Your task to perform on an android device: Open Youtube and go to the subscriptions tab Image 0: 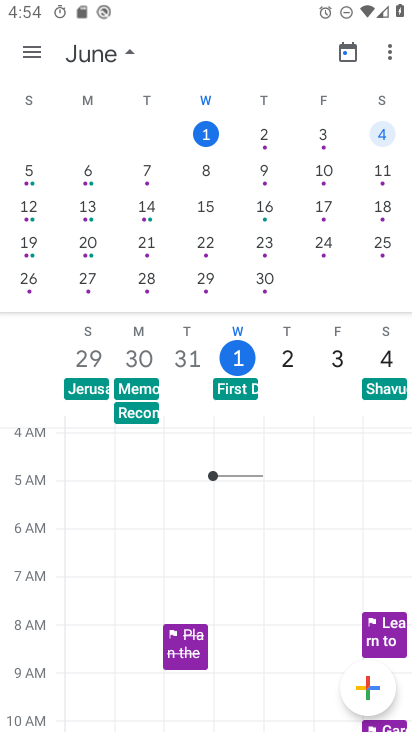
Step 0: press home button
Your task to perform on an android device: Open Youtube and go to the subscriptions tab Image 1: 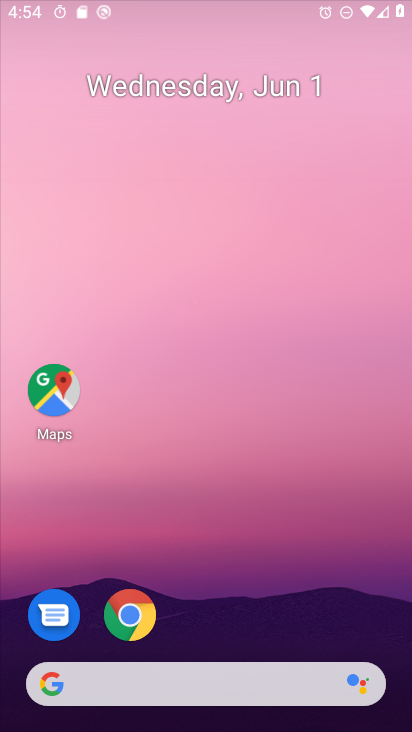
Step 1: drag from (303, 682) to (236, 104)
Your task to perform on an android device: Open Youtube and go to the subscriptions tab Image 2: 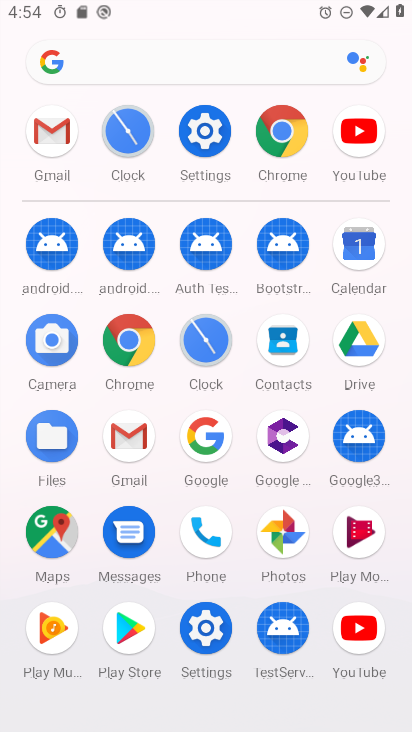
Step 2: click (349, 619)
Your task to perform on an android device: Open Youtube and go to the subscriptions tab Image 3: 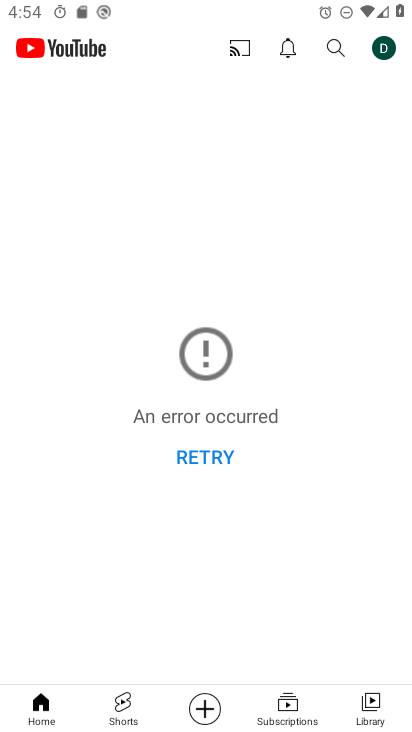
Step 3: press home button
Your task to perform on an android device: Open Youtube and go to the subscriptions tab Image 4: 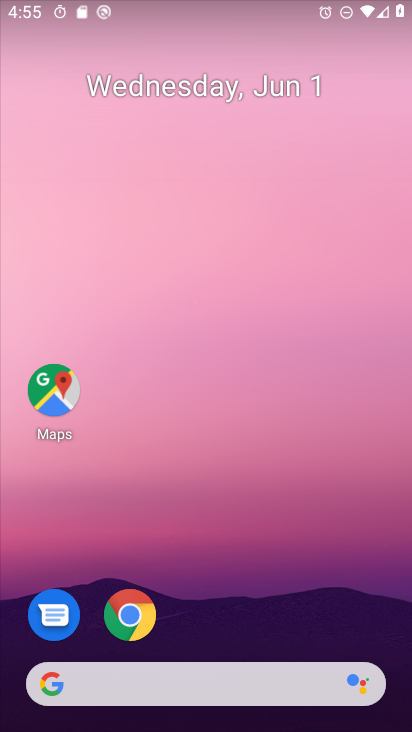
Step 4: drag from (205, 658) to (243, 152)
Your task to perform on an android device: Open Youtube and go to the subscriptions tab Image 5: 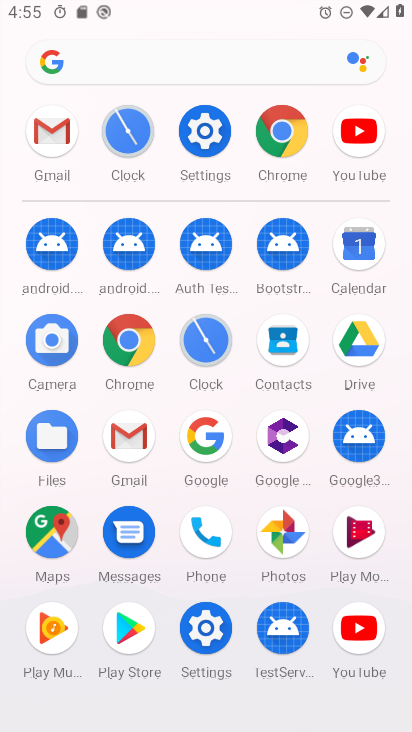
Step 5: click (350, 631)
Your task to perform on an android device: Open Youtube and go to the subscriptions tab Image 6: 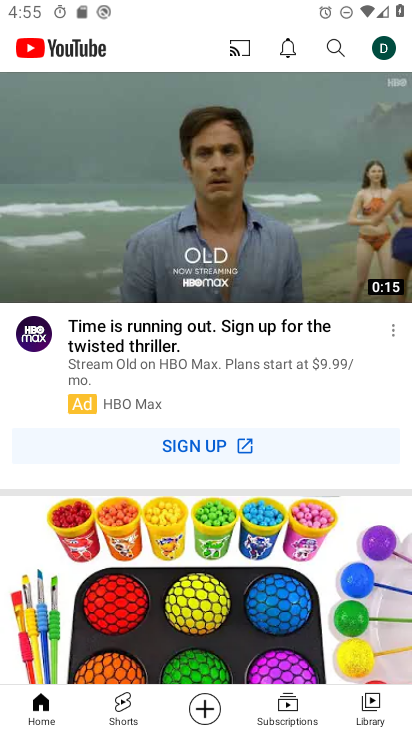
Step 6: click (301, 698)
Your task to perform on an android device: Open Youtube and go to the subscriptions tab Image 7: 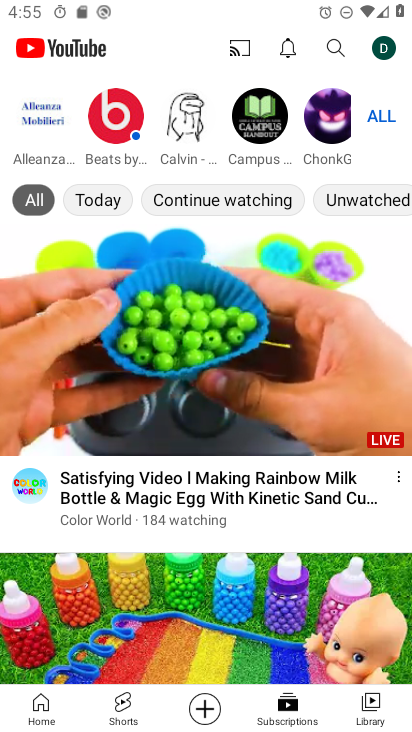
Step 7: task complete